Your task to perform on an android device: open a bookmark in the chrome app Image 0: 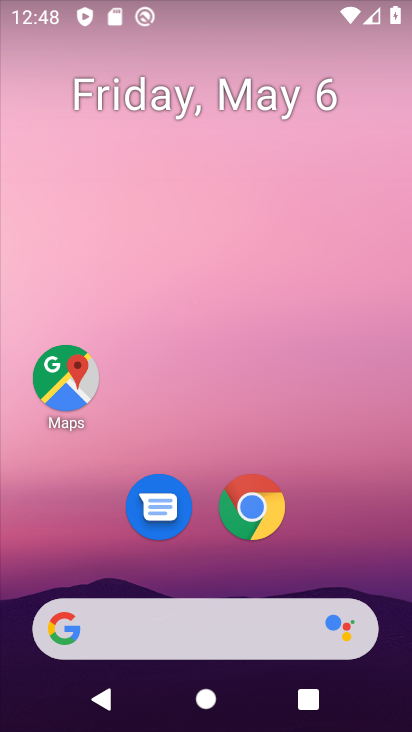
Step 0: click (240, 523)
Your task to perform on an android device: open a bookmark in the chrome app Image 1: 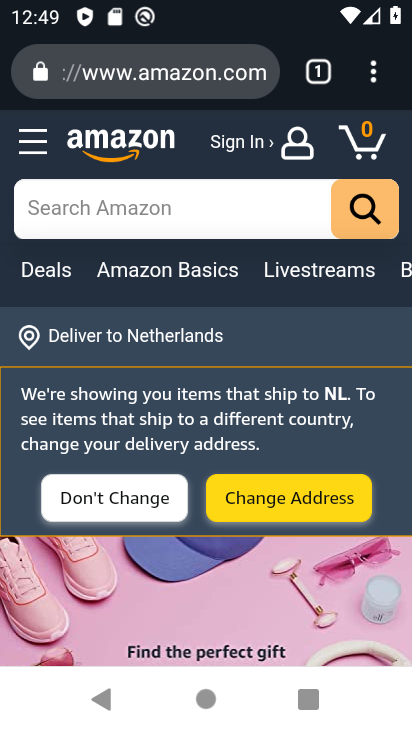
Step 1: drag from (391, 79) to (325, 284)
Your task to perform on an android device: open a bookmark in the chrome app Image 2: 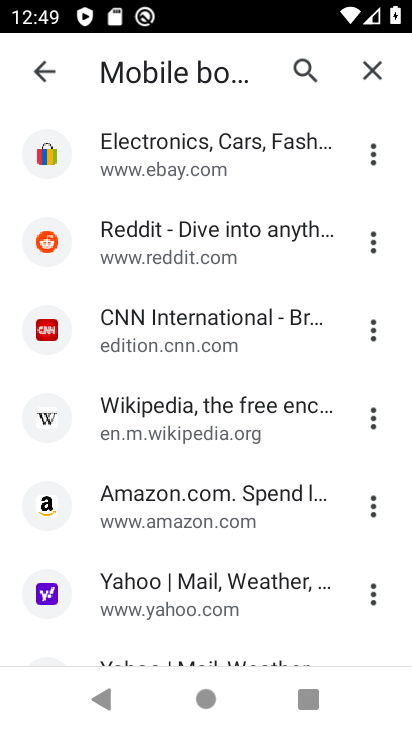
Step 2: click (185, 246)
Your task to perform on an android device: open a bookmark in the chrome app Image 3: 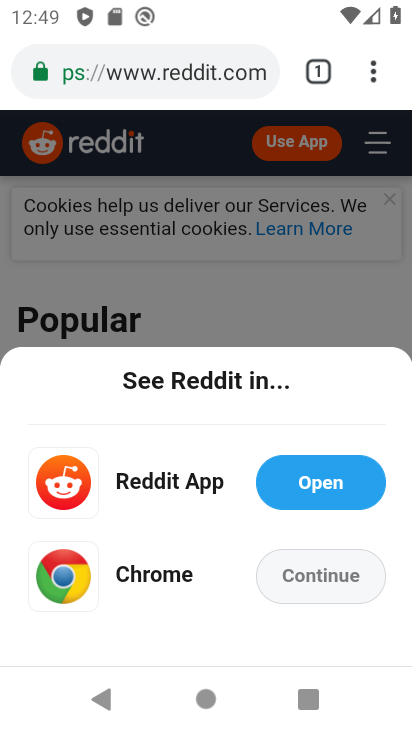
Step 3: click (359, 587)
Your task to perform on an android device: open a bookmark in the chrome app Image 4: 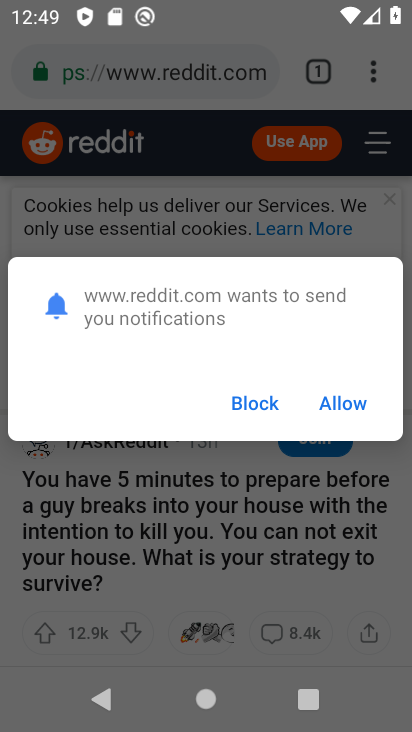
Step 4: click (346, 404)
Your task to perform on an android device: open a bookmark in the chrome app Image 5: 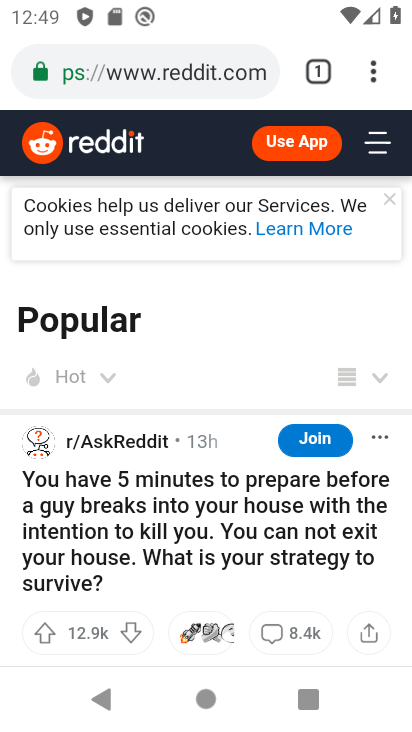
Step 5: task complete